Your task to perform on an android device: Open Google Chrome and open the bookmarks view Image 0: 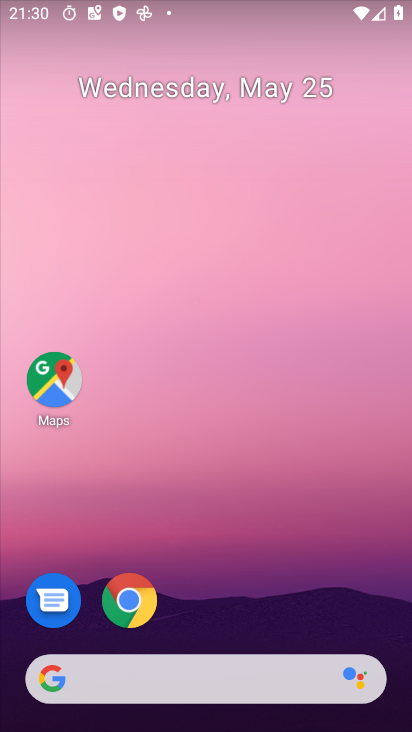
Step 0: drag from (278, 598) to (323, 202)
Your task to perform on an android device: Open Google Chrome and open the bookmarks view Image 1: 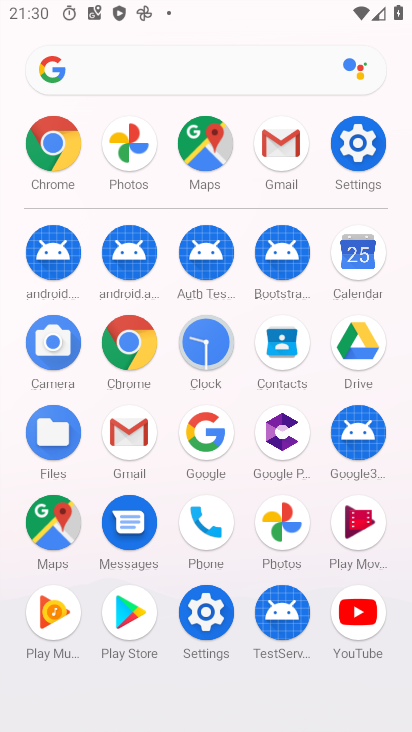
Step 1: click (127, 348)
Your task to perform on an android device: Open Google Chrome and open the bookmarks view Image 2: 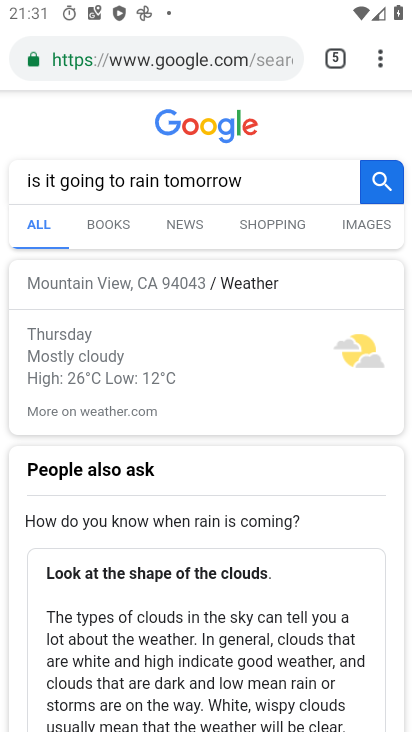
Step 2: task complete